Your task to perform on an android device: all mails in gmail Image 0: 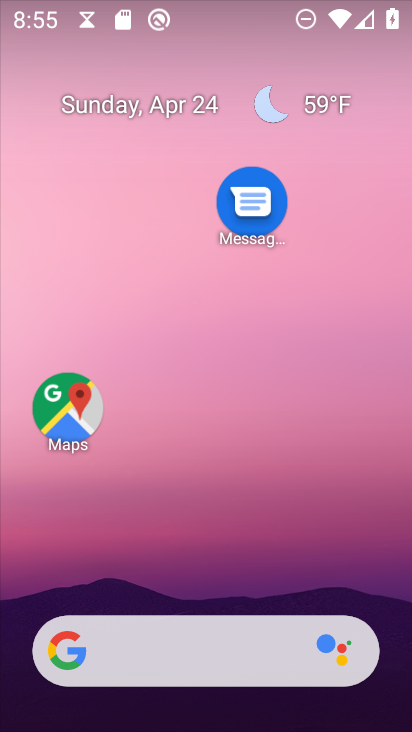
Step 0: press home button
Your task to perform on an android device: all mails in gmail Image 1: 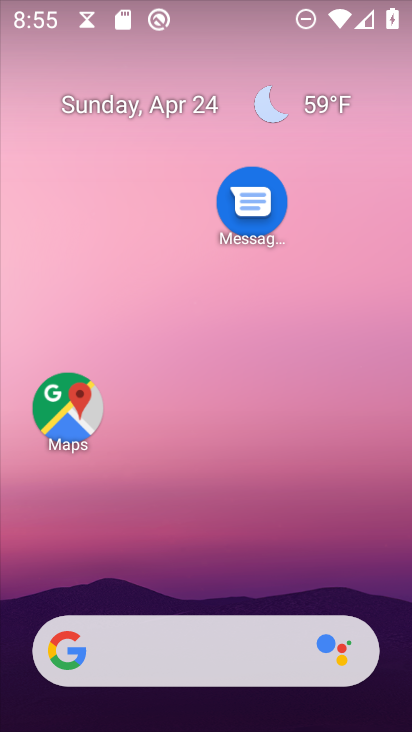
Step 1: drag from (162, 630) to (324, 26)
Your task to perform on an android device: all mails in gmail Image 2: 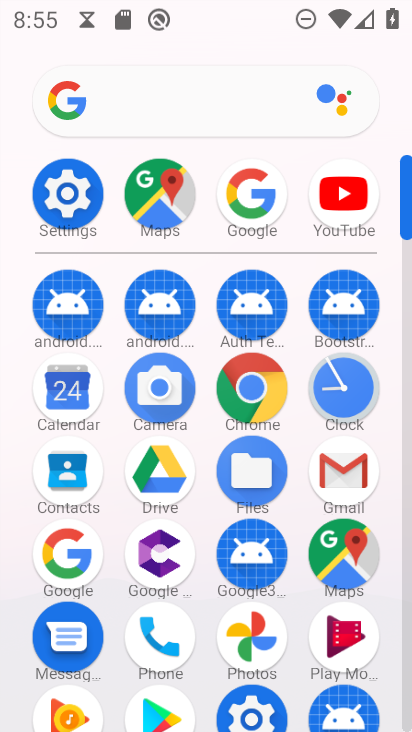
Step 2: click (343, 479)
Your task to perform on an android device: all mails in gmail Image 3: 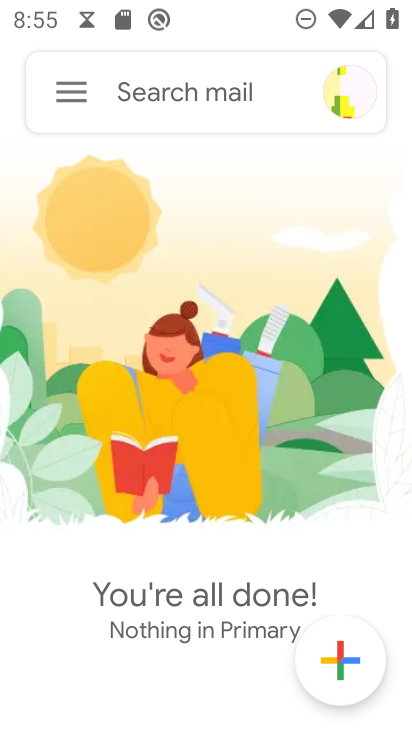
Step 3: click (79, 97)
Your task to perform on an android device: all mails in gmail Image 4: 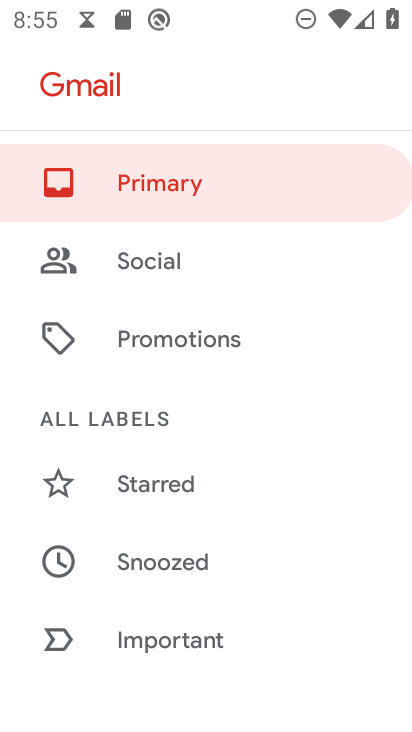
Step 4: drag from (232, 543) to (369, 110)
Your task to perform on an android device: all mails in gmail Image 5: 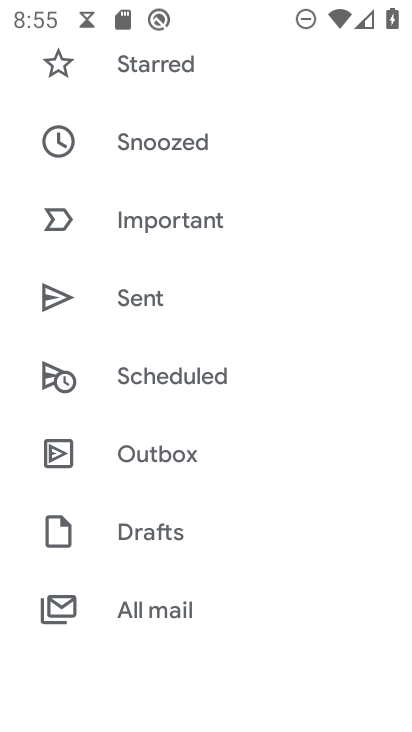
Step 5: click (171, 607)
Your task to perform on an android device: all mails in gmail Image 6: 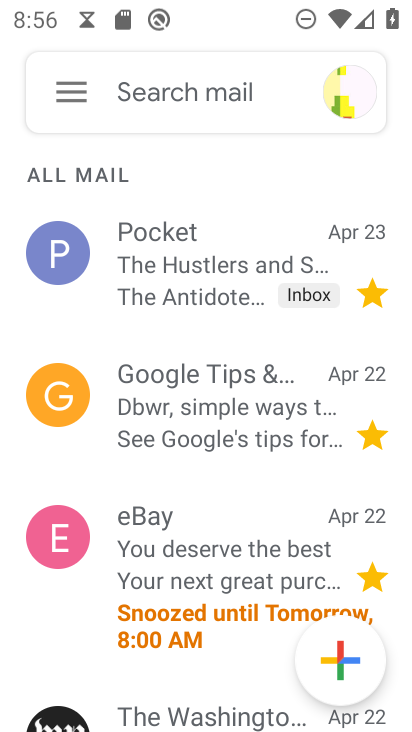
Step 6: task complete